Your task to perform on an android device: star an email in the gmail app Image 0: 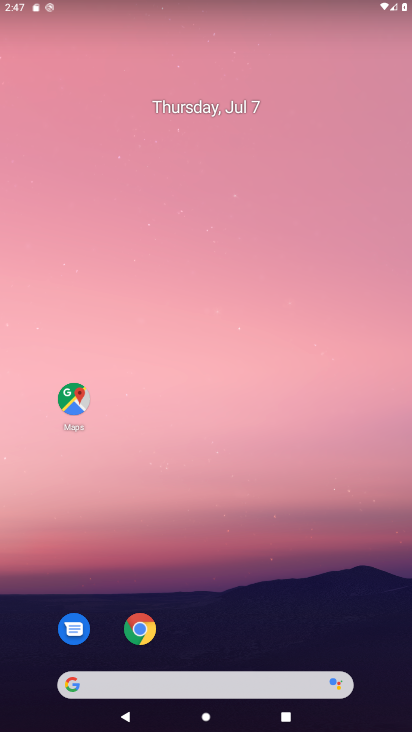
Step 0: drag from (334, 573) to (368, 282)
Your task to perform on an android device: star an email in the gmail app Image 1: 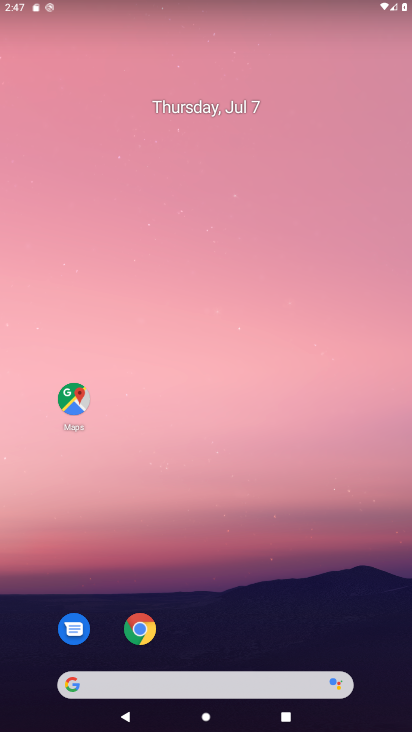
Step 1: drag from (258, 648) to (292, 3)
Your task to perform on an android device: star an email in the gmail app Image 2: 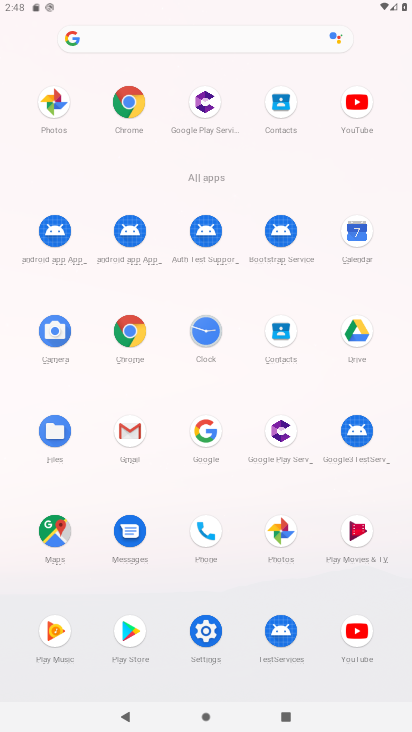
Step 2: click (132, 426)
Your task to perform on an android device: star an email in the gmail app Image 3: 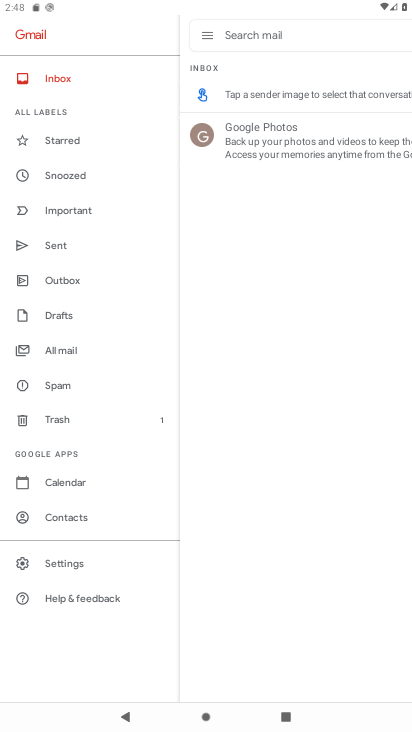
Step 3: click (99, 346)
Your task to perform on an android device: star an email in the gmail app Image 4: 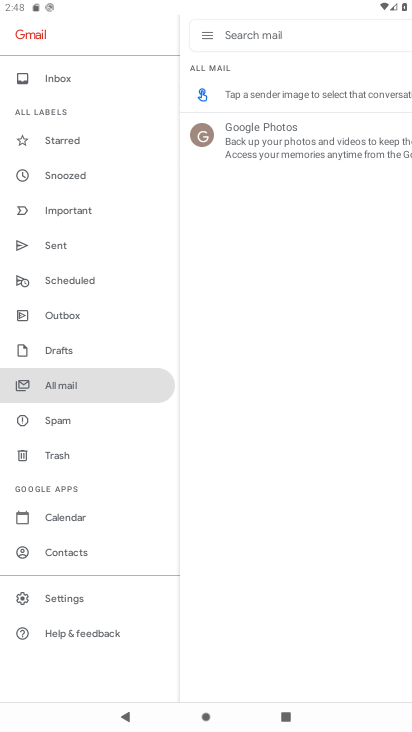
Step 4: click (134, 391)
Your task to perform on an android device: star an email in the gmail app Image 5: 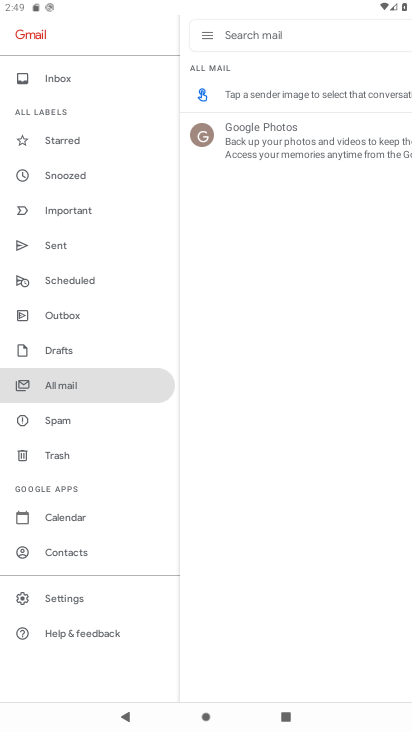
Step 5: task complete